Your task to perform on an android device: Is it going to rain tomorrow? Image 0: 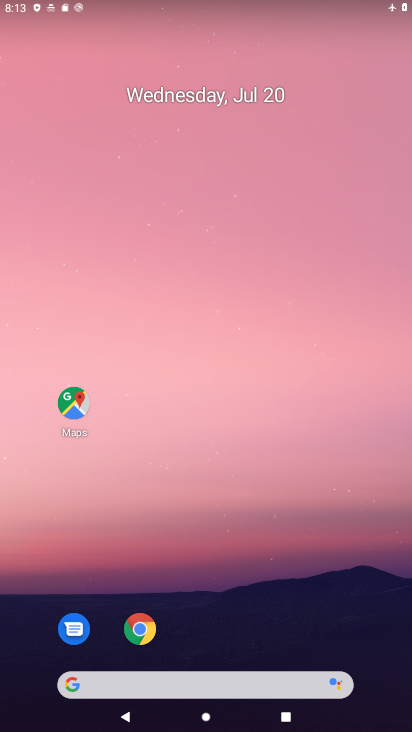
Step 0: drag from (312, 542) to (287, 140)
Your task to perform on an android device: Is it going to rain tomorrow? Image 1: 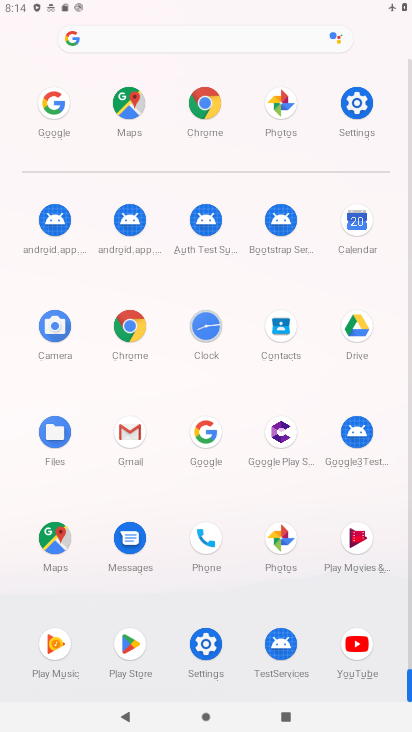
Step 1: click (203, 113)
Your task to perform on an android device: Is it going to rain tomorrow? Image 2: 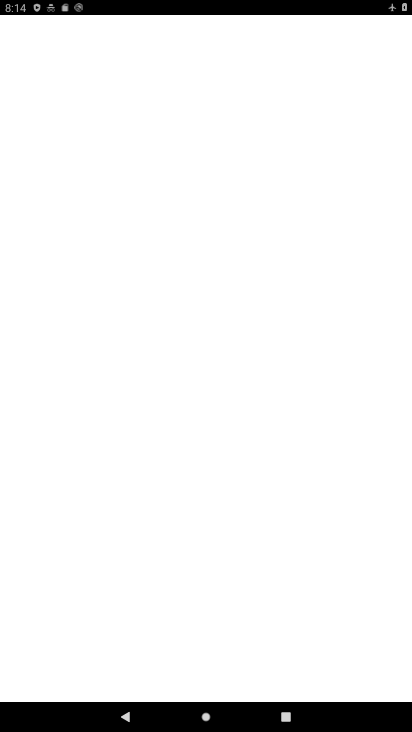
Step 2: click (203, 112)
Your task to perform on an android device: Is it going to rain tomorrow? Image 3: 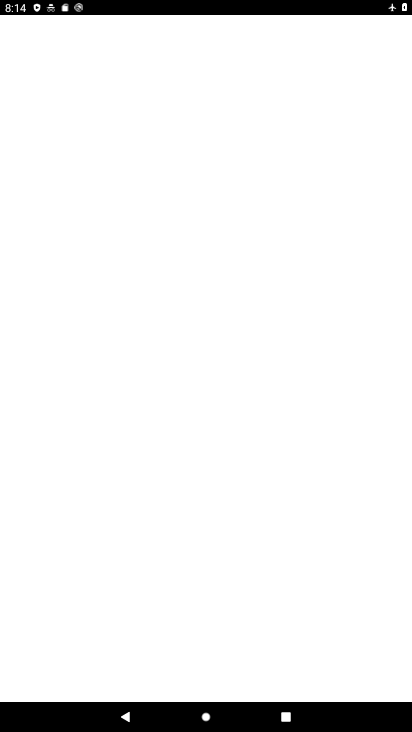
Step 3: click (205, 111)
Your task to perform on an android device: Is it going to rain tomorrow? Image 4: 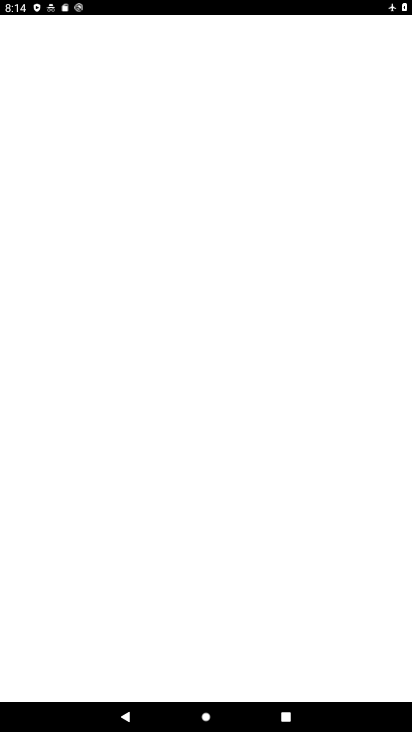
Step 4: click (206, 111)
Your task to perform on an android device: Is it going to rain tomorrow? Image 5: 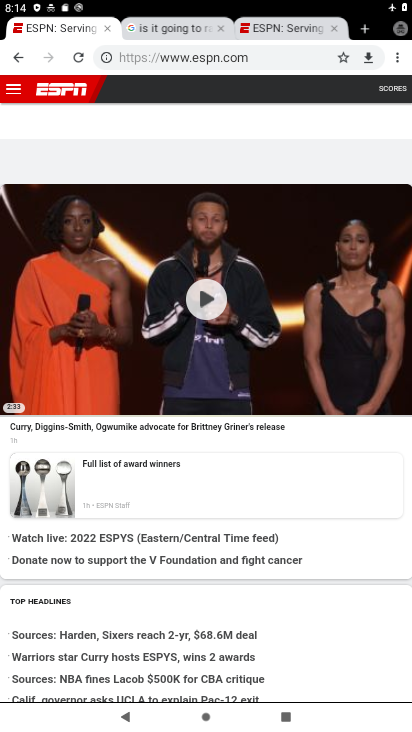
Step 5: drag from (396, 53) to (266, 355)
Your task to perform on an android device: Is it going to rain tomorrow? Image 6: 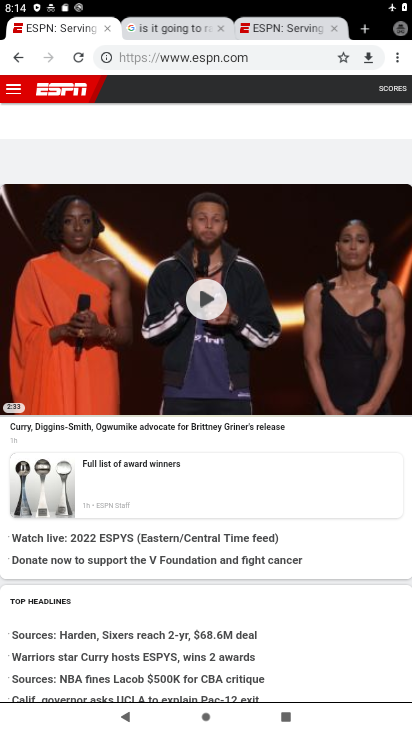
Step 6: click (264, 348)
Your task to perform on an android device: Is it going to rain tomorrow? Image 7: 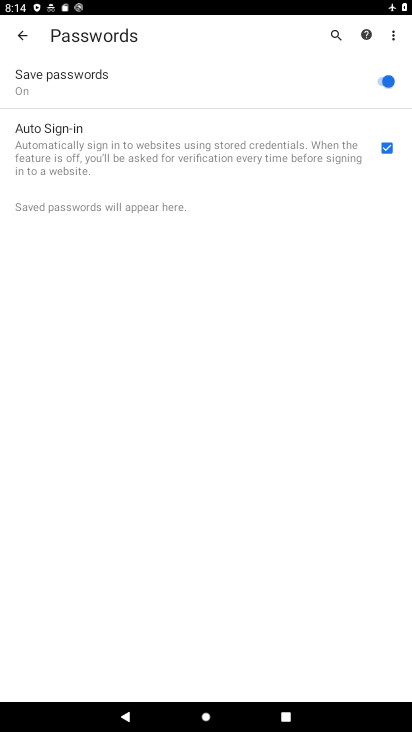
Step 7: click (23, 42)
Your task to perform on an android device: Is it going to rain tomorrow? Image 8: 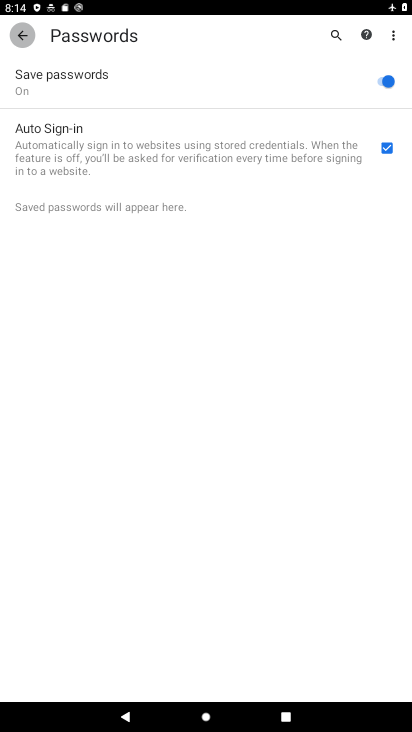
Step 8: click (22, 41)
Your task to perform on an android device: Is it going to rain tomorrow? Image 9: 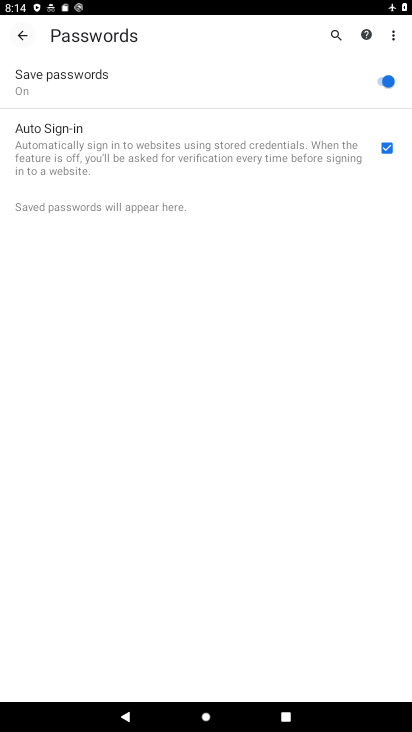
Step 9: click (22, 38)
Your task to perform on an android device: Is it going to rain tomorrow? Image 10: 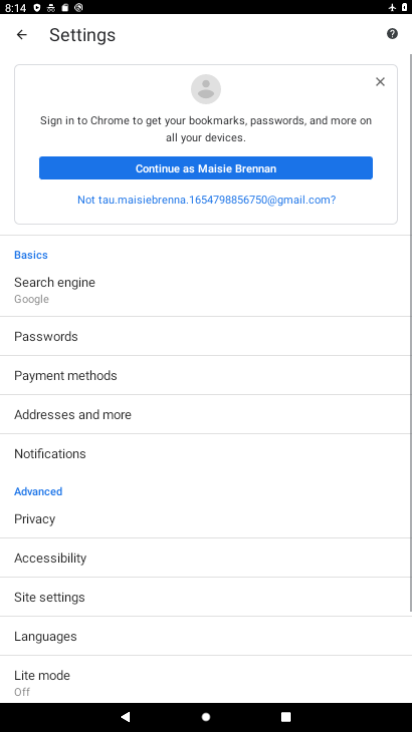
Step 10: click (24, 27)
Your task to perform on an android device: Is it going to rain tomorrow? Image 11: 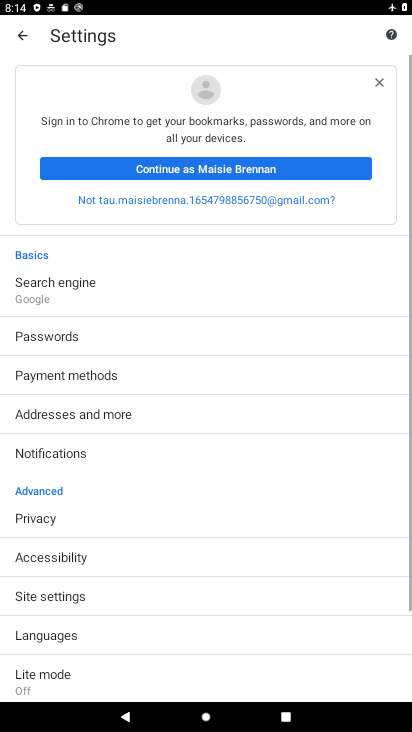
Step 11: click (25, 28)
Your task to perform on an android device: Is it going to rain tomorrow? Image 12: 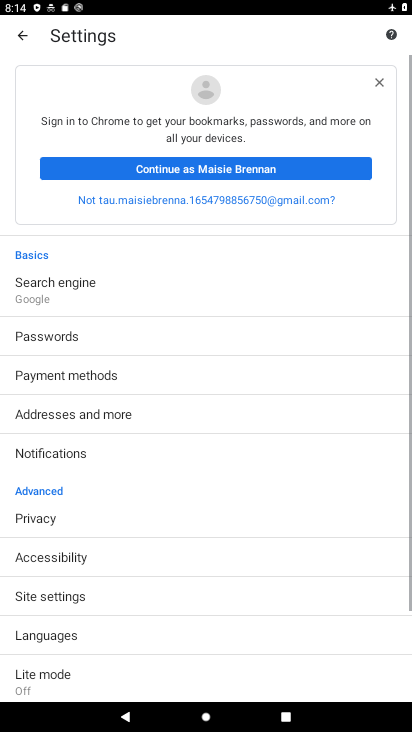
Step 12: click (25, 36)
Your task to perform on an android device: Is it going to rain tomorrow? Image 13: 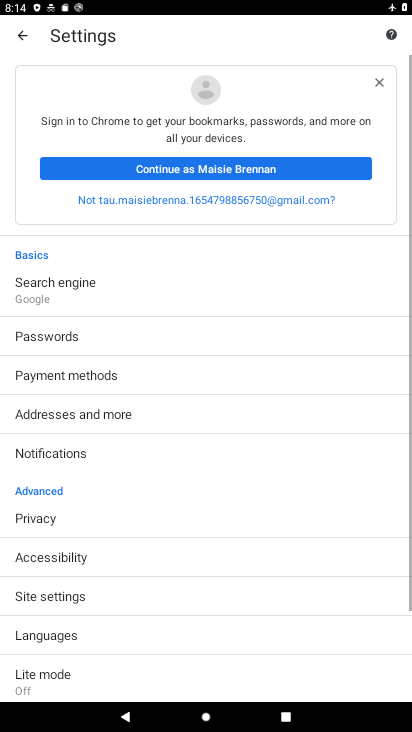
Step 13: click (29, 38)
Your task to perform on an android device: Is it going to rain tomorrow? Image 14: 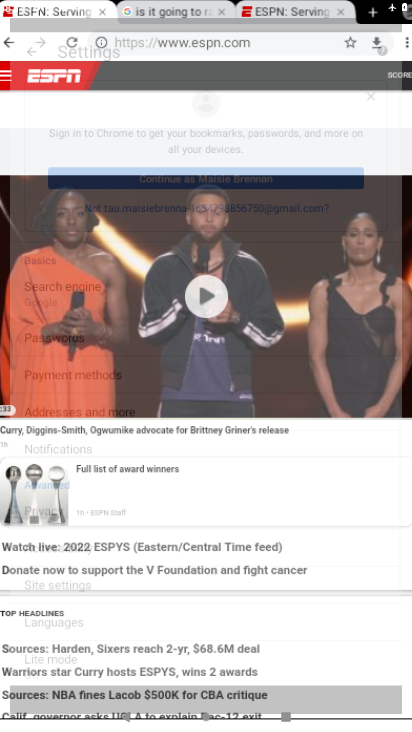
Step 14: click (29, 38)
Your task to perform on an android device: Is it going to rain tomorrow? Image 15: 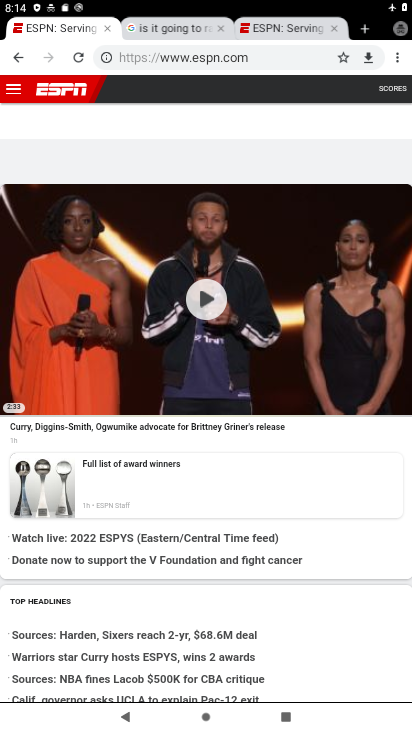
Step 15: click (29, 38)
Your task to perform on an android device: Is it going to rain tomorrow? Image 16: 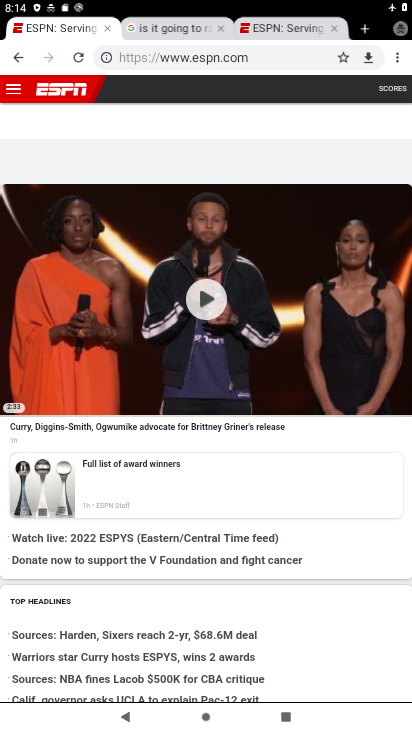
Step 16: click (392, 55)
Your task to perform on an android device: Is it going to rain tomorrow? Image 17: 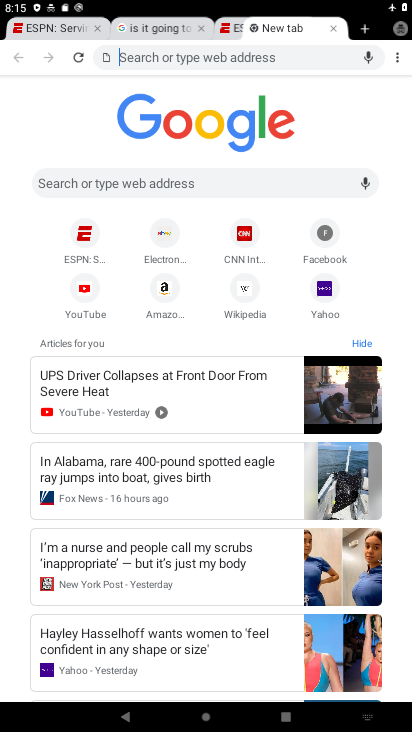
Step 17: type "is it going to rain tomorrow?"
Your task to perform on an android device: Is it going to rain tomorrow? Image 18: 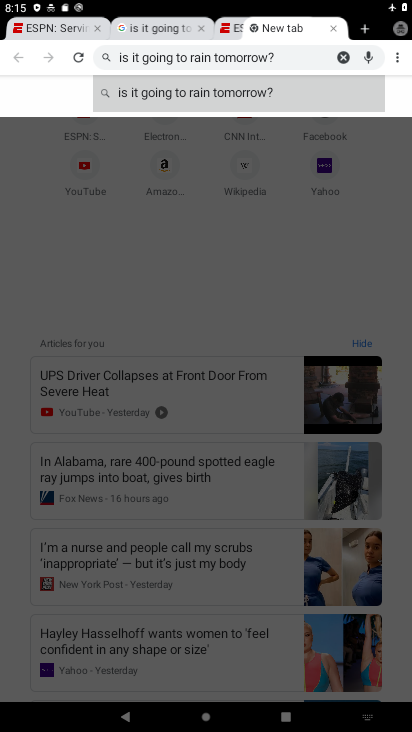
Step 18: click (226, 98)
Your task to perform on an android device: Is it going to rain tomorrow? Image 19: 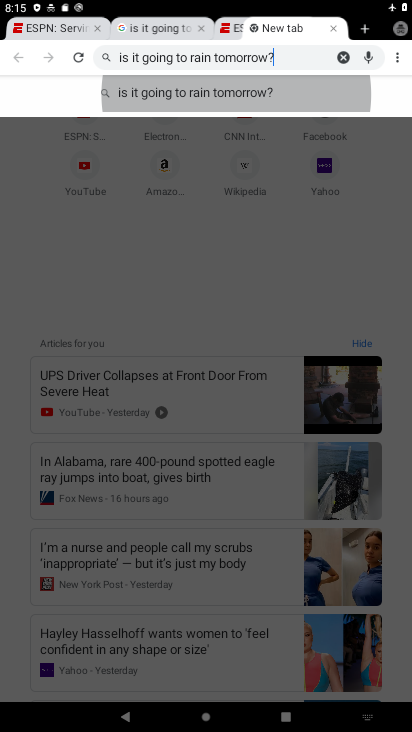
Step 19: click (227, 99)
Your task to perform on an android device: Is it going to rain tomorrow? Image 20: 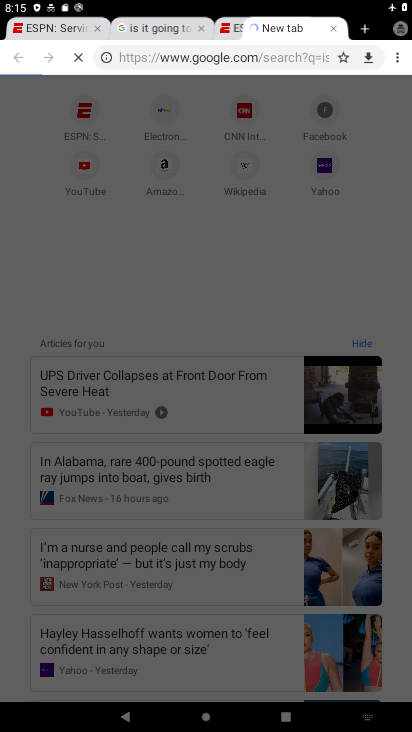
Step 20: click (228, 100)
Your task to perform on an android device: Is it going to rain tomorrow? Image 21: 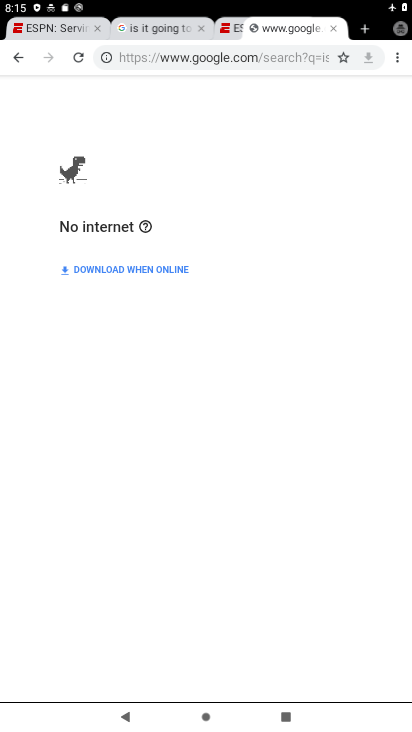
Step 21: task complete